Your task to perform on an android device: Open network settings Image 0: 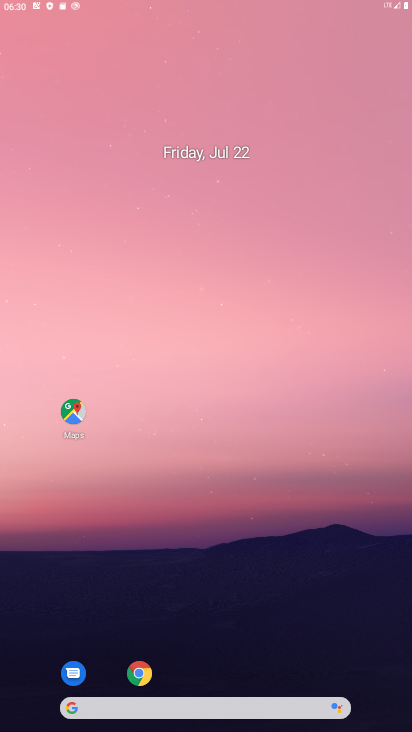
Step 0: press home button
Your task to perform on an android device: Open network settings Image 1: 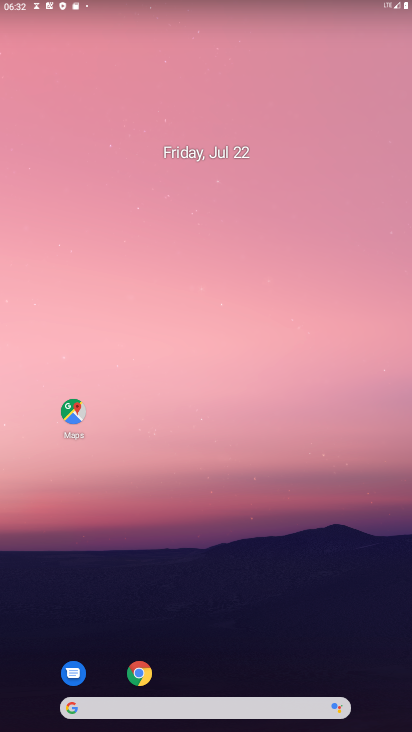
Step 1: drag from (201, 659) to (231, 98)
Your task to perform on an android device: Open network settings Image 2: 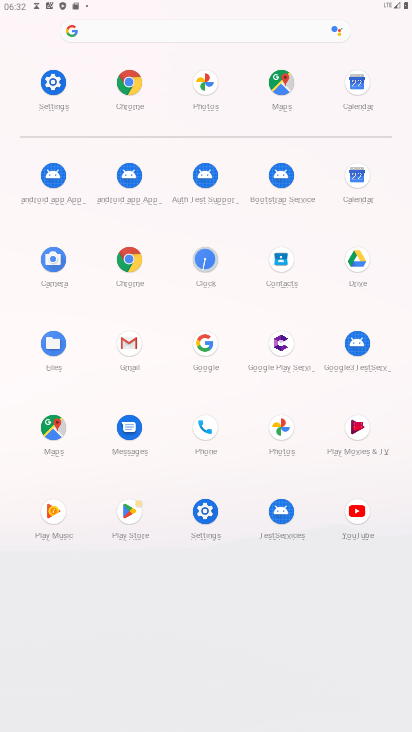
Step 2: click (56, 85)
Your task to perform on an android device: Open network settings Image 3: 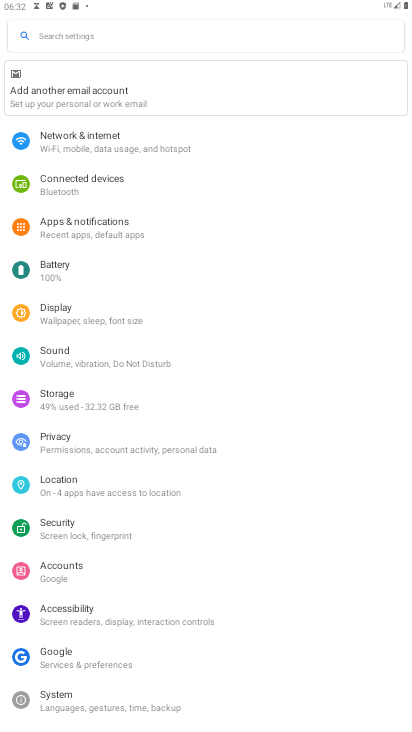
Step 3: click (67, 146)
Your task to perform on an android device: Open network settings Image 4: 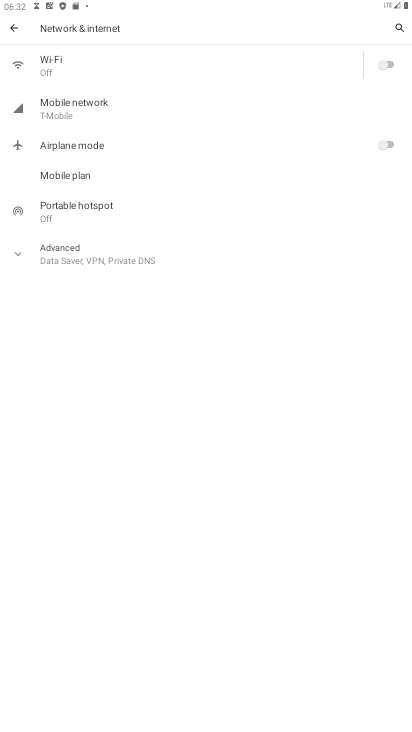
Step 4: task complete